Your task to perform on an android device: turn off smart reply in the gmail app Image 0: 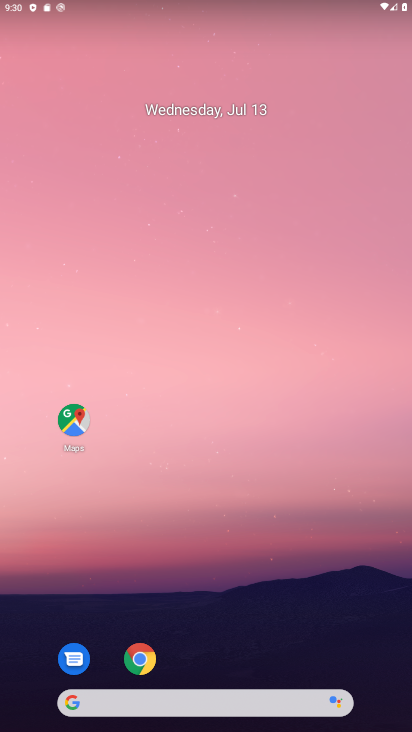
Step 0: drag from (293, 422) to (228, 2)
Your task to perform on an android device: turn off smart reply in the gmail app Image 1: 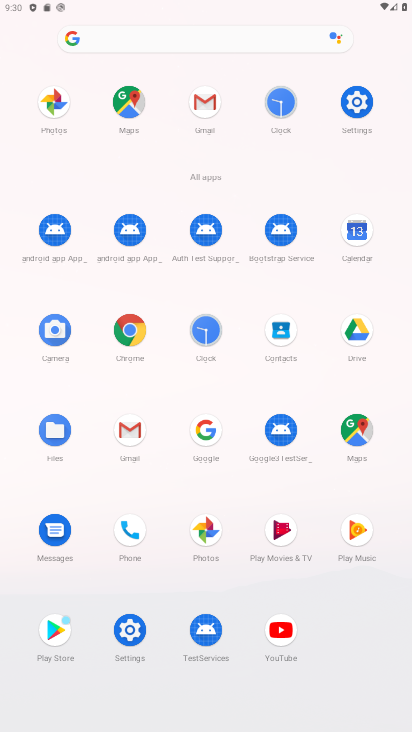
Step 1: click (203, 102)
Your task to perform on an android device: turn off smart reply in the gmail app Image 2: 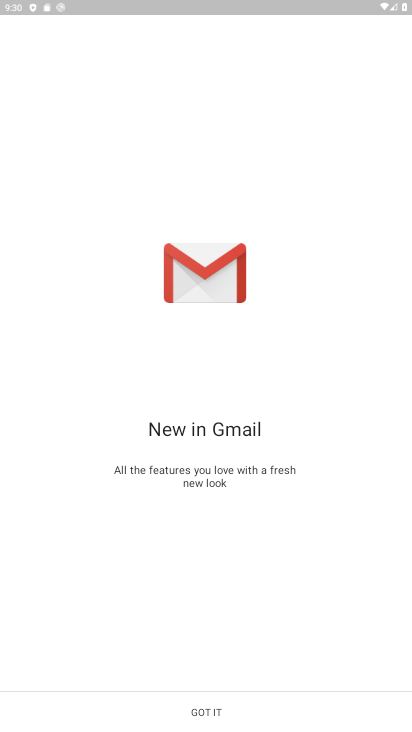
Step 2: click (239, 726)
Your task to perform on an android device: turn off smart reply in the gmail app Image 3: 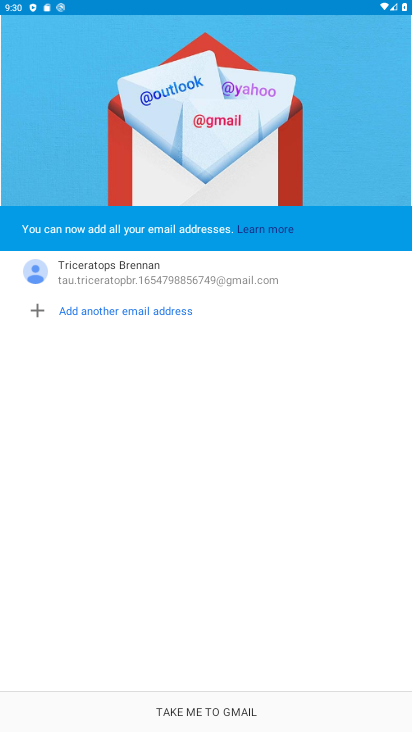
Step 3: click (239, 711)
Your task to perform on an android device: turn off smart reply in the gmail app Image 4: 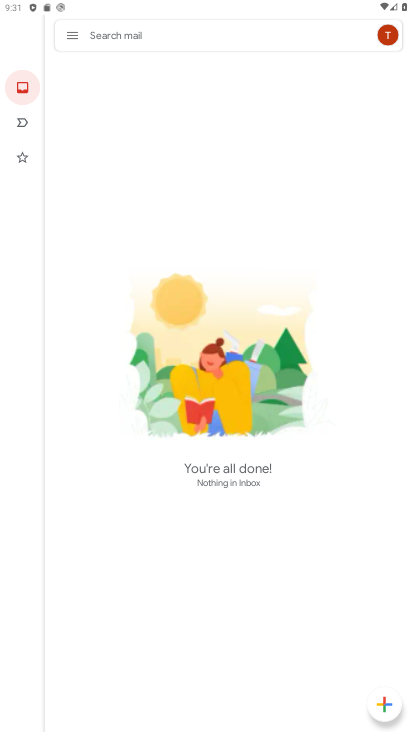
Step 4: click (69, 35)
Your task to perform on an android device: turn off smart reply in the gmail app Image 5: 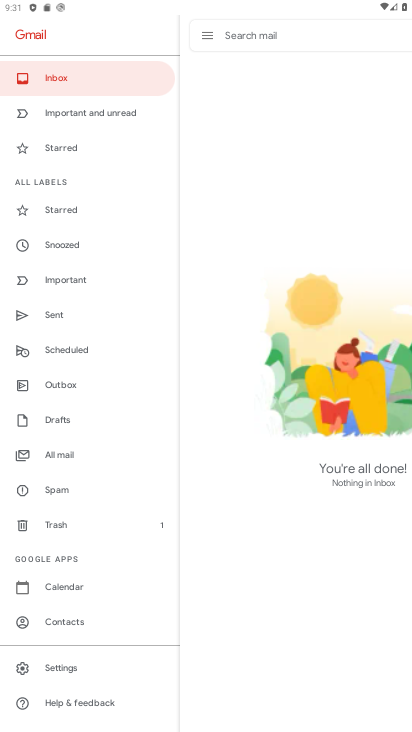
Step 5: click (69, 677)
Your task to perform on an android device: turn off smart reply in the gmail app Image 6: 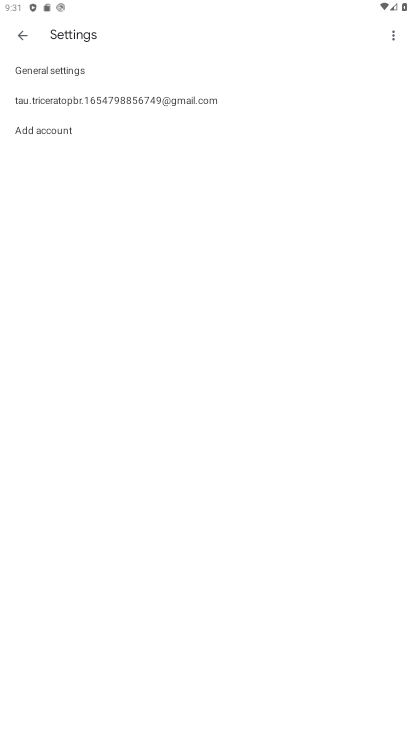
Step 6: click (205, 101)
Your task to perform on an android device: turn off smart reply in the gmail app Image 7: 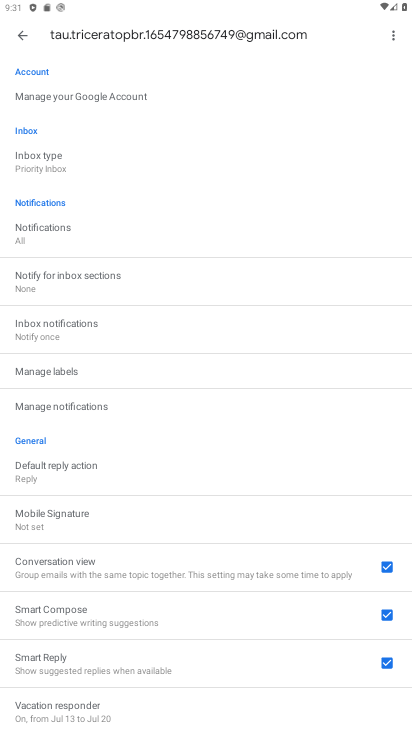
Step 7: drag from (157, 156) to (175, 542)
Your task to perform on an android device: turn off smart reply in the gmail app Image 8: 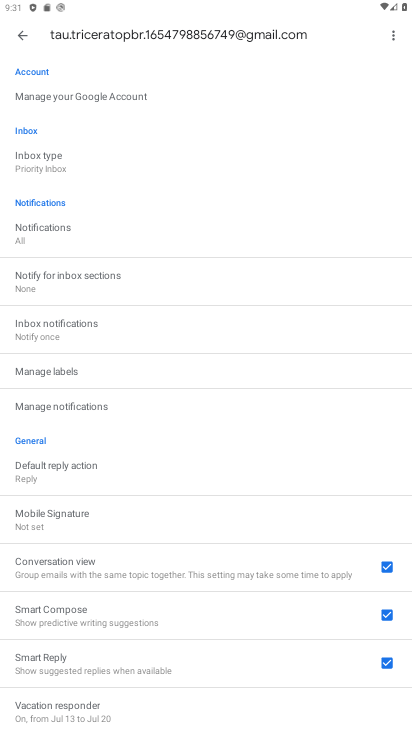
Step 8: drag from (229, 454) to (252, 96)
Your task to perform on an android device: turn off smart reply in the gmail app Image 9: 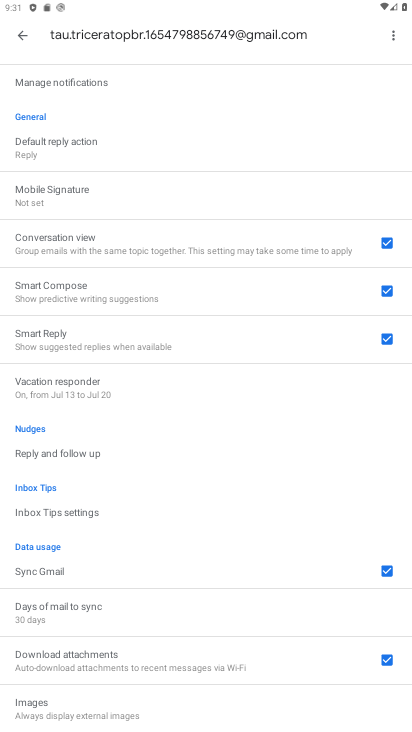
Step 9: drag from (216, 510) to (231, 211)
Your task to perform on an android device: turn off smart reply in the gmail app Image 10: 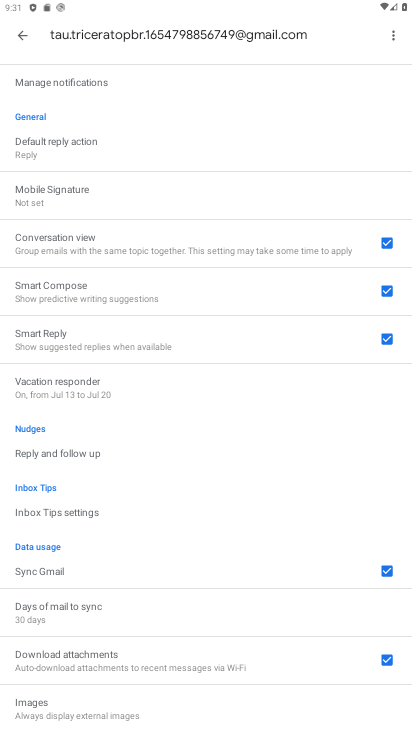
Step 10: click (388, 337)
Your task to perform on an android device: turn off smart reply in the gmail app Image 11: 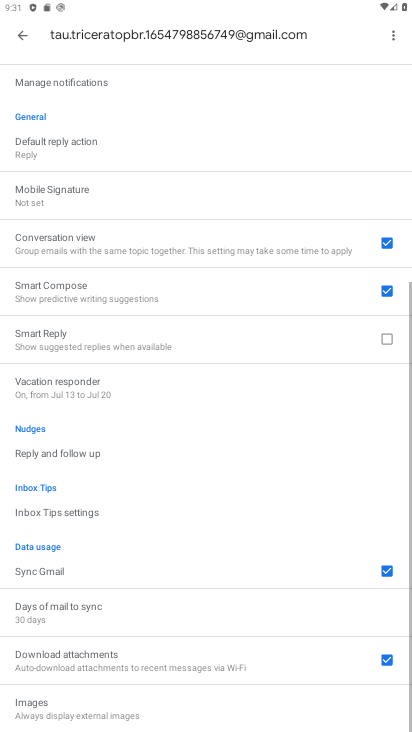
Step 11: task complete